Your task to perform on an android device: change the clock display to digital Image 0: 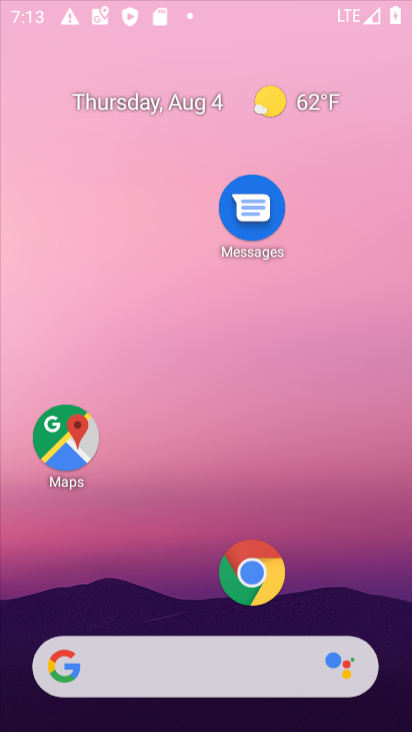
Step 0: press home button
Your task to perform on an android device: change the clock display to digital Image 1: 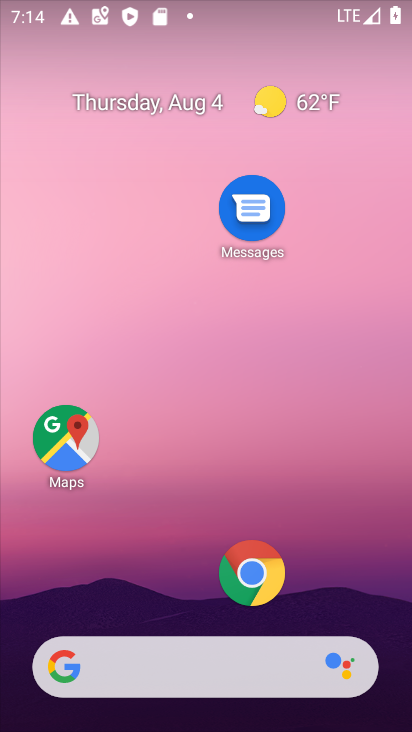
Step 1: click (175, 60)
Your task to perform on an android device: change the clock display to digital Image 2: 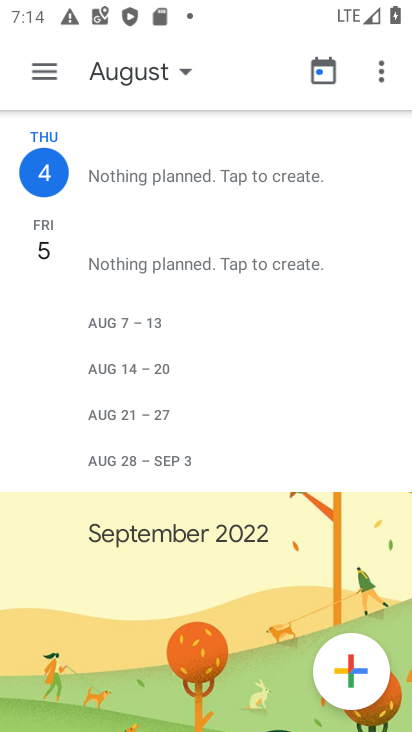
Step 2: press home button
Your task to perform on an android device: change the clock display to digital Image 3: 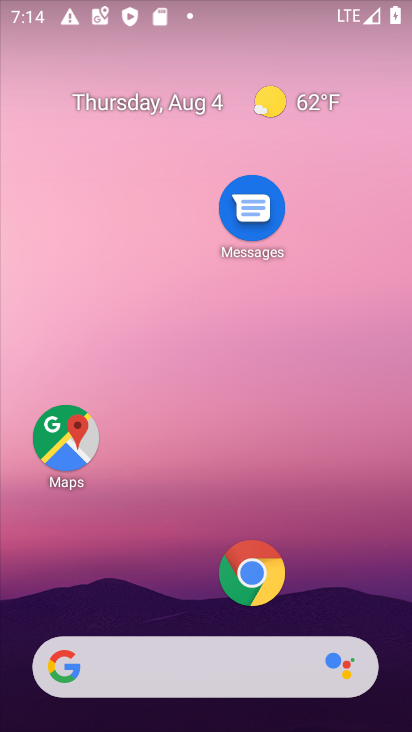
Step 3: drag from (192, 616) to (227, 88)
Your task to perform on an android device: change the clock display to digital Image 4: 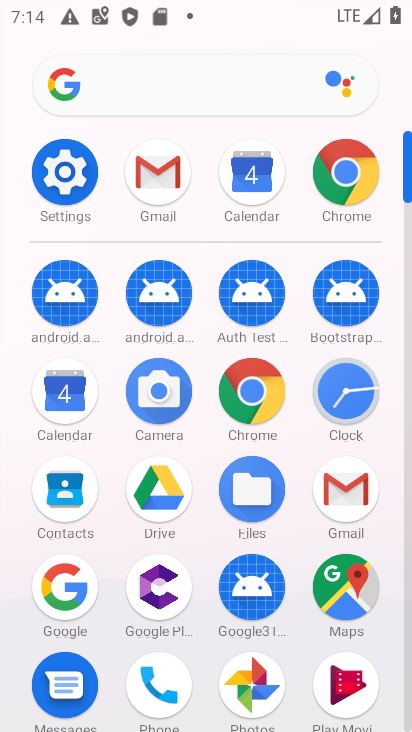
Step 4: click (359, 402)
Your task to perform on an android device: change the clock display to digital Image 5: 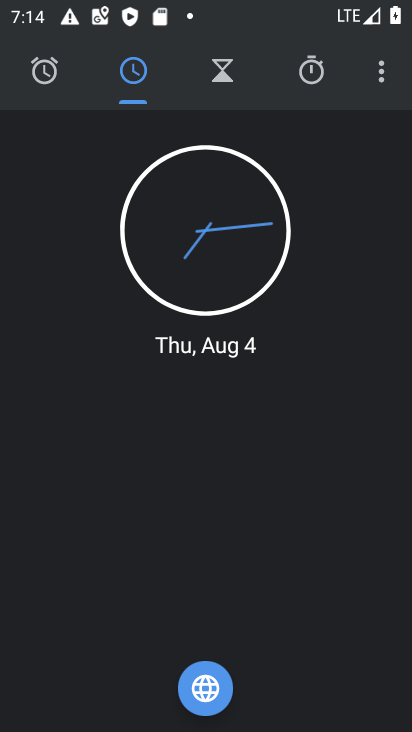
Step 5: click (381, 72)
Your task to perform on an android device: change the clock display to digital Image 6: 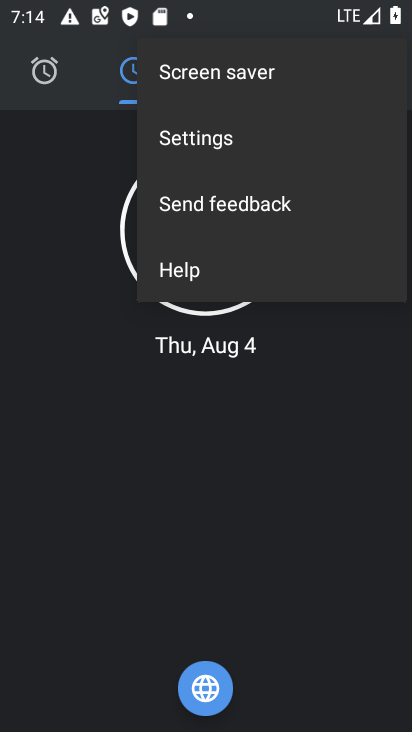
Step 6: click (219, 139)
Your task to perform on an android device: change the clock display to digital Image 7: 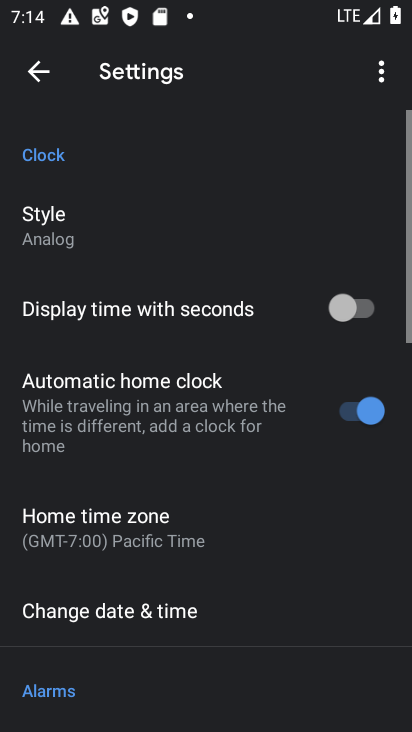
Step 7: click (49, 228)
Your task to perform on an android device: change the clock display to digital Image 8: 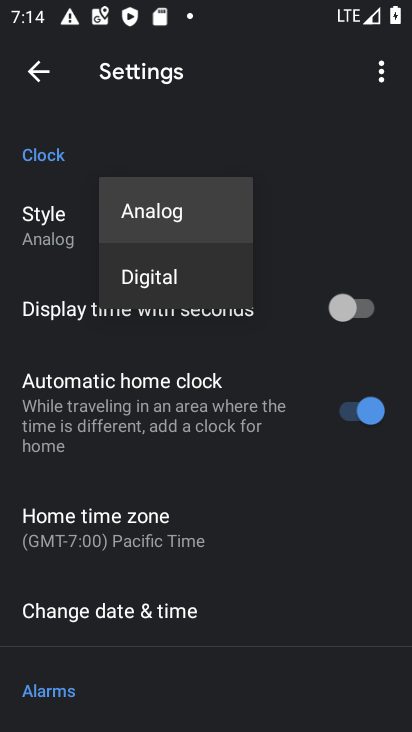
Step 8: click (137, 277)
Your task to perform on an android device: change the clock display to digital Image 9: 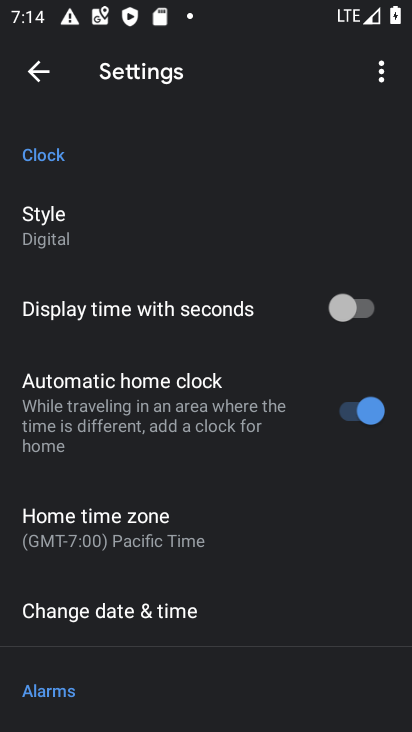
Step 9: task complete